Your task to perform on an android device: toggle sleep mode Image 0: 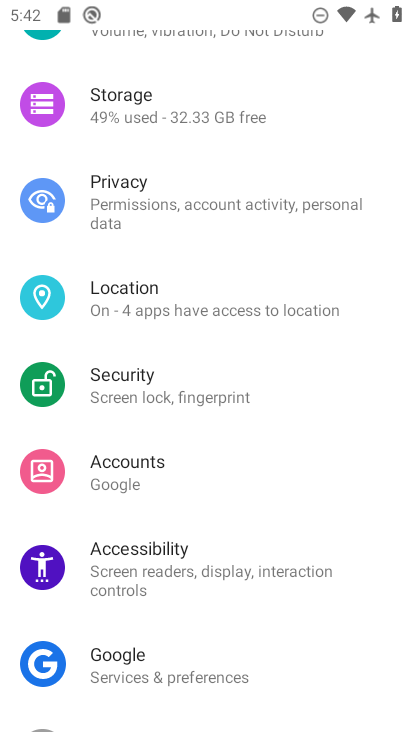
Step 0: press back button
Your task to perform on an android device: toggle sleep mode Image 1: 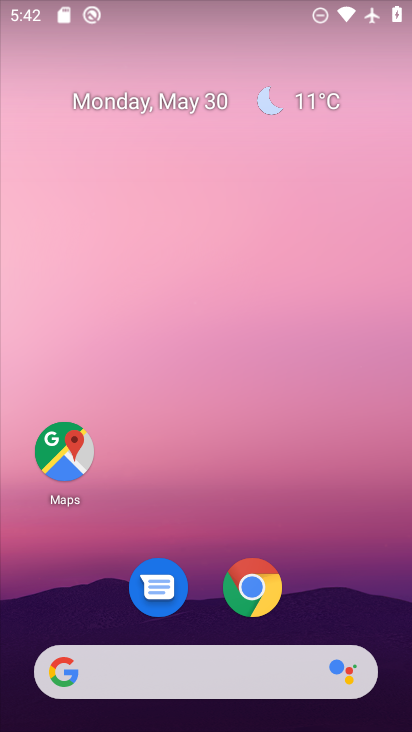
Step 1: drag from (321, 521) to (171, 4)
Your task to perform on an android device: toggle sleep mode Image 2: 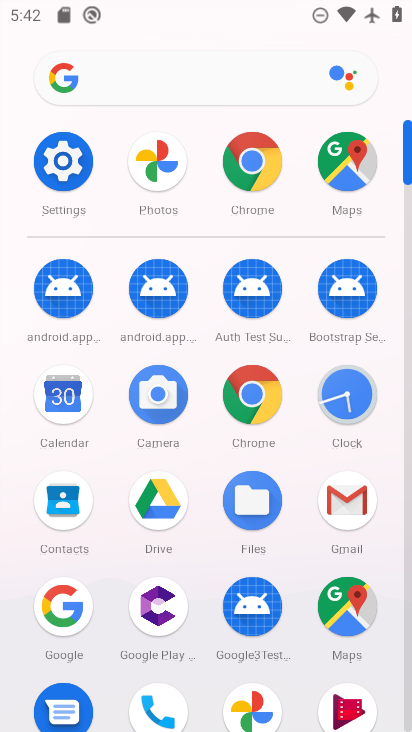
Step 2: click (60, 154)
Your task to perform on an android device: toggle sleep mode Image 3: 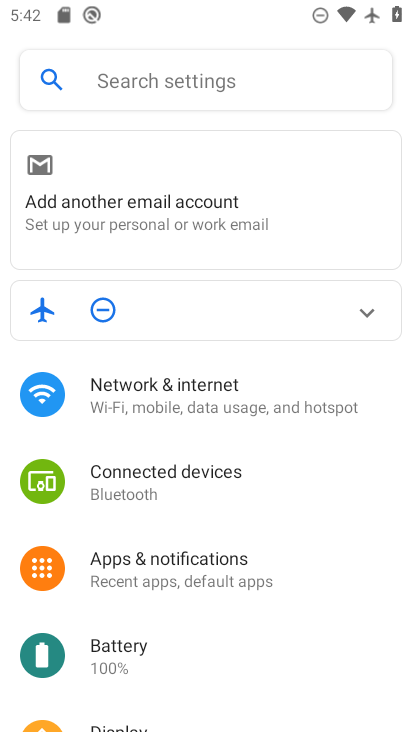
Step 3: drag from (313, 551) to (291, 123)
Your task to perform on an android device: toggle sleep mode Image 4: 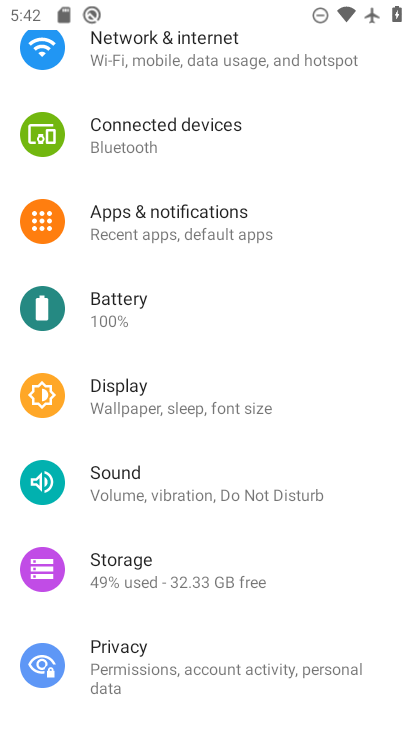
Step 4: drag from (288, 556) to (254, 161)
Your task to perform on an android device: toggle sleep mode Image 5: 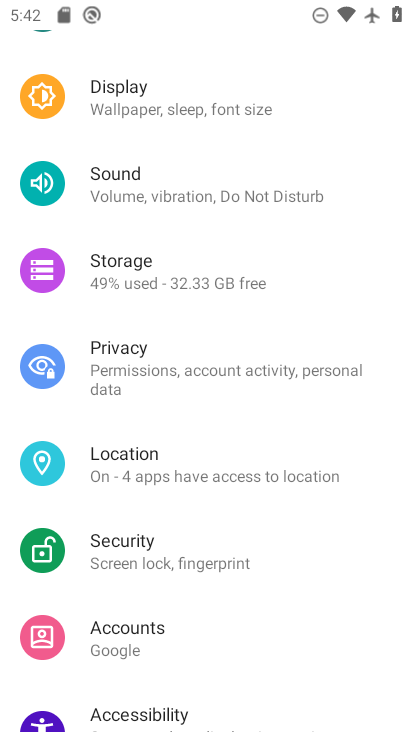
Step 5: drag from (270, 569) to (226, 189)
Your task to perform on an android device: toggle sleep mode Image 6: 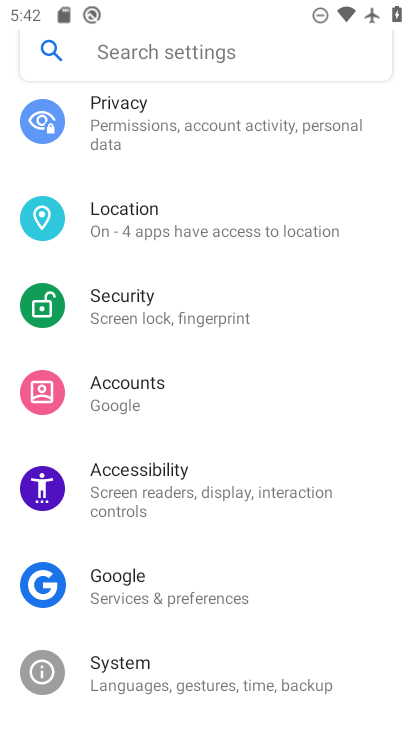
Step 6: drag from (244, 594) to (248, 186)
Your task to perform on an android device: toggle sleep mode Image 7: 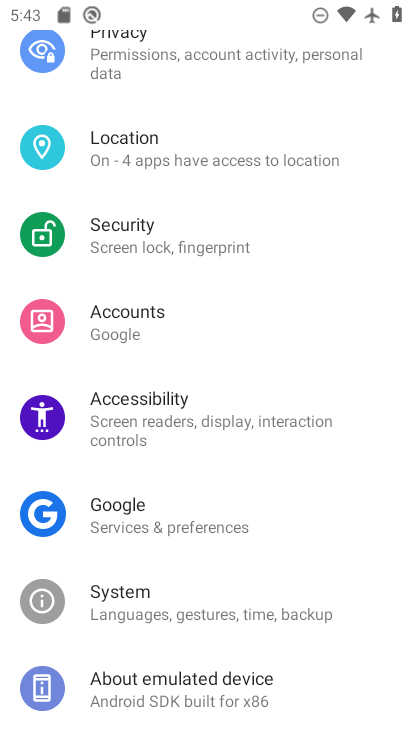
Step 7: drag from (206, 124) to (235, 365)
Your task to perform on an android device: toggle sleep mode Image 8: 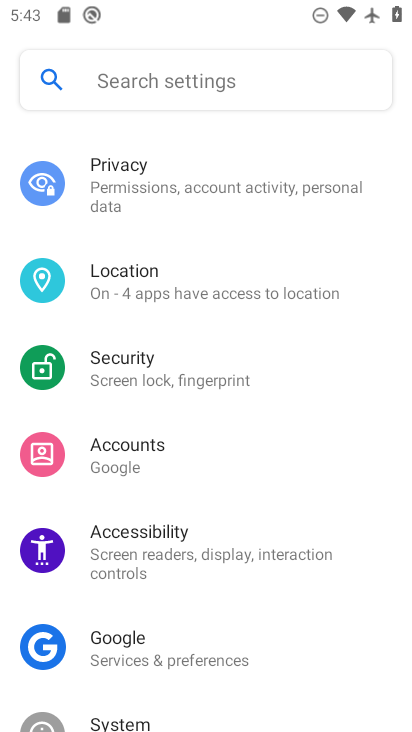
Step 8: drag from (269, 563) to (283, 618)
Your task to perform on an android device: toggle sleep mode Image 9: 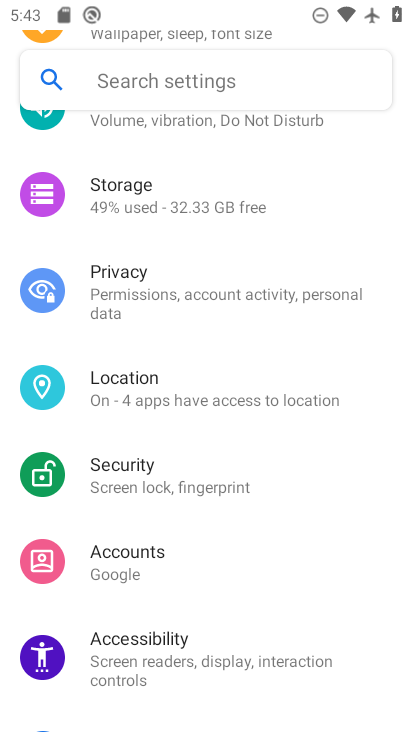
Step 9: drag from (258, 219) to (265, 618)
Your task to perform on an android device: toggle sleep mode Image 10: 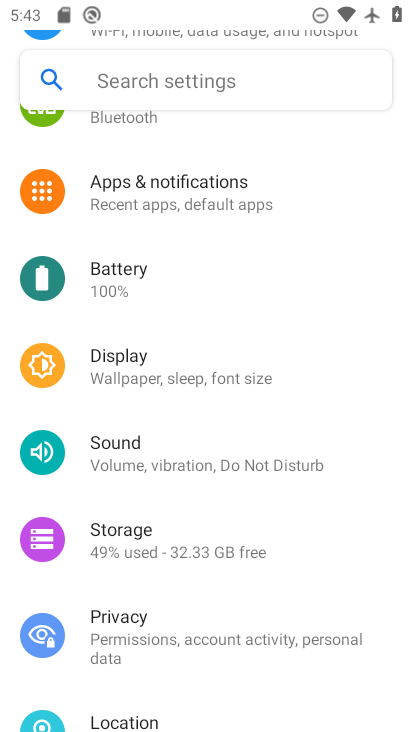
Step 10: drag from (223, 207) to (253, 625)
Your task to perform on an android device: toggle sleep mode Image 11: 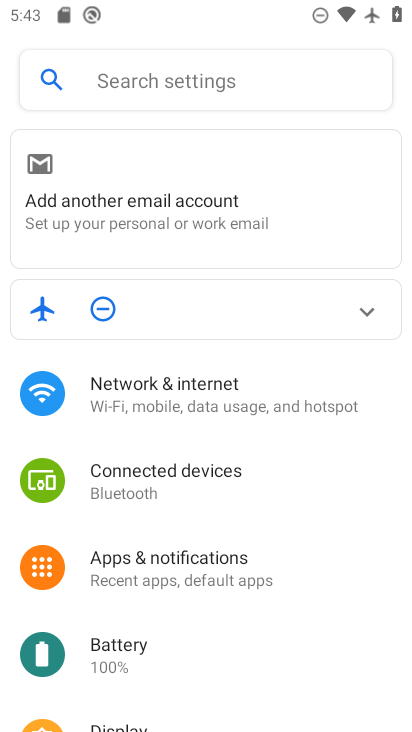
Step 11: click (227, 398)
Your task to perform on an android device: toggle sleep mode Image 12: 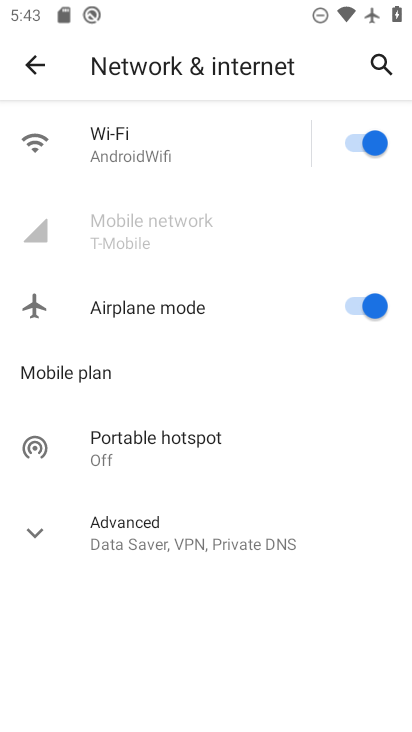
Step 12: click (34, 71)
Your task to perform on an android device: toggle sleep mode Image 13: 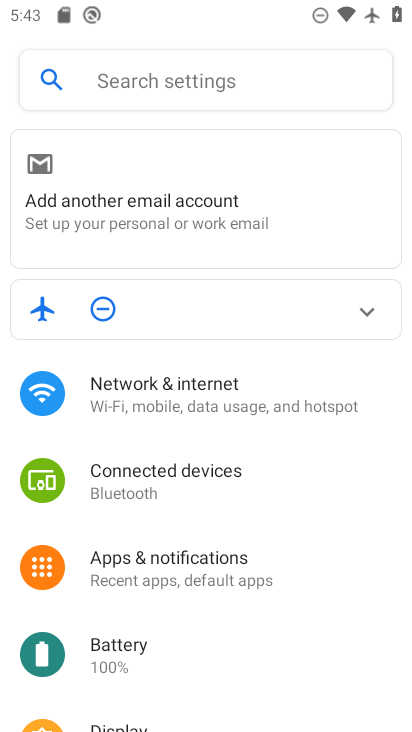
Step 13: drag from (282, 619) to (285, 251)
Your task to perform on an android device: toggle sleep mode Image 14: 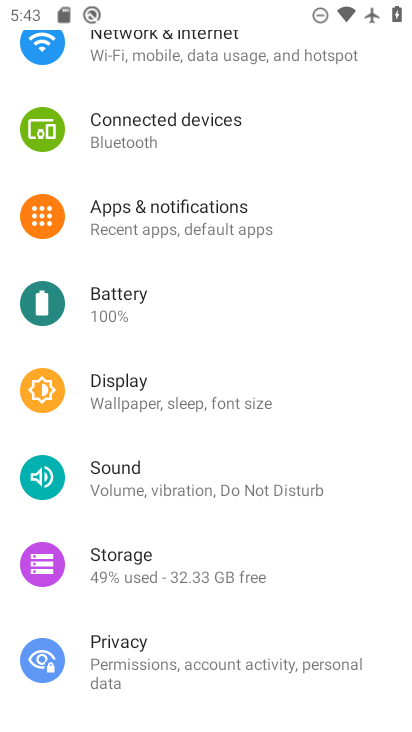
Step 14: click (179, 394)
Your task to perform on an android device: toggle sleep mode Image 15: 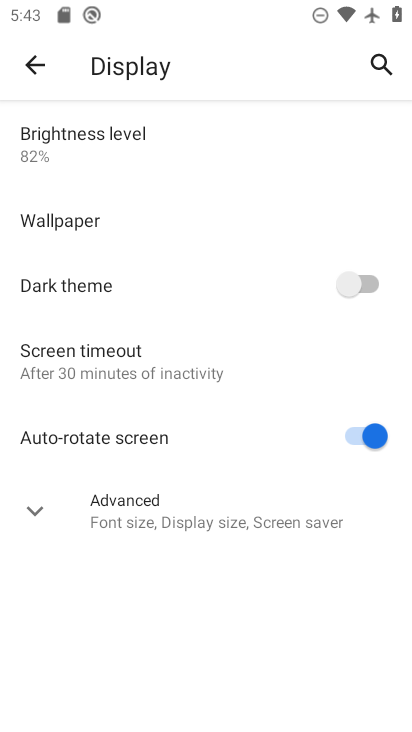
Step 15: click (33, 512)
Your task to perform on an android device: toggle sleep mode Image 16: 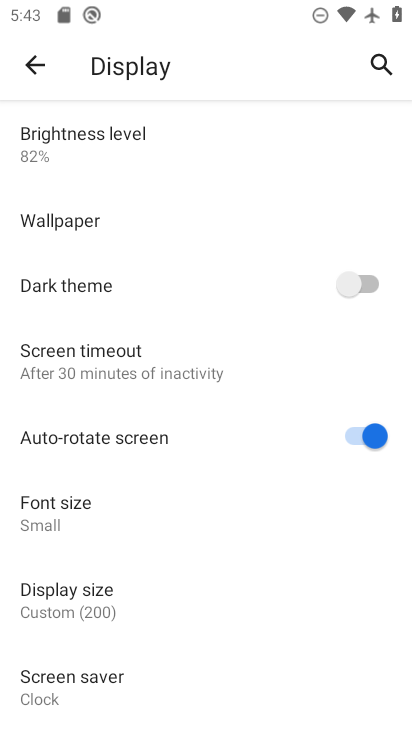
Step 16: task complete